Your task to perform on an android device: empty trash in the gmail app Image 0: 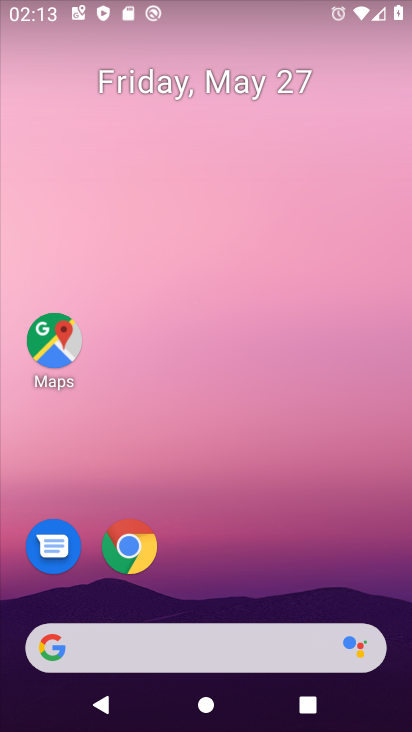
Step 0: drag from (244, 655) to (275, 91)
Your task to perform on an android device: empty trash in the gmail app Image 1: 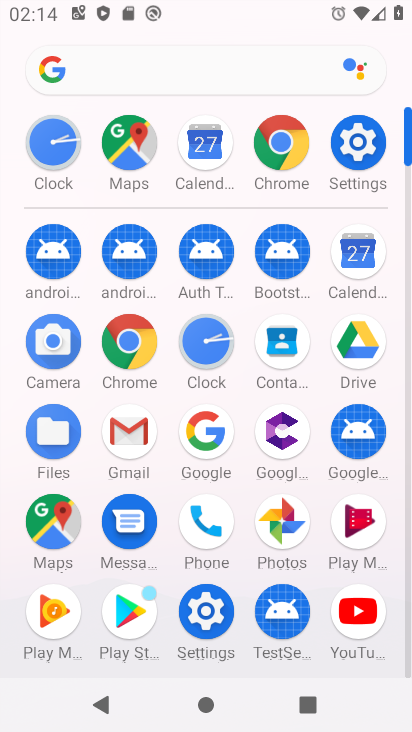
Step 1: click (143, 462)
Your task to perform on an android device: empty trash in the gmail app Image 2: 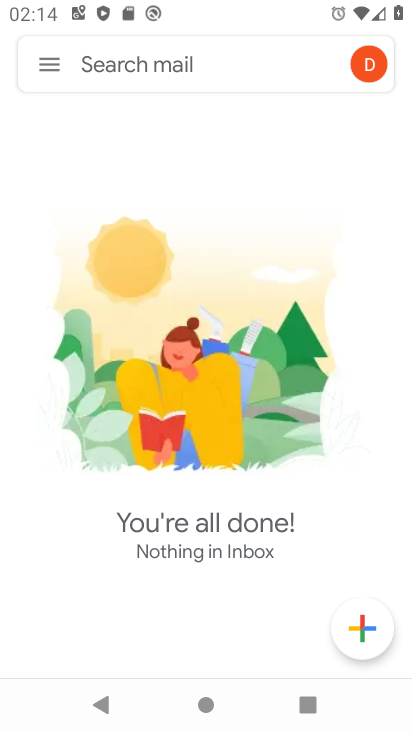
Step 2: click (50, 67)
Your task to perform on an android device: empty trash in the gmail app Image 3: 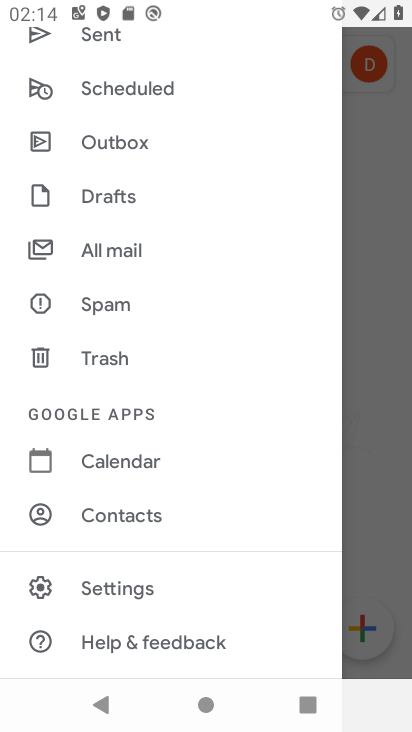
Step 3: click (116, 353)
Your task to perform on an android device: empty trash in the gmail app Image 4: 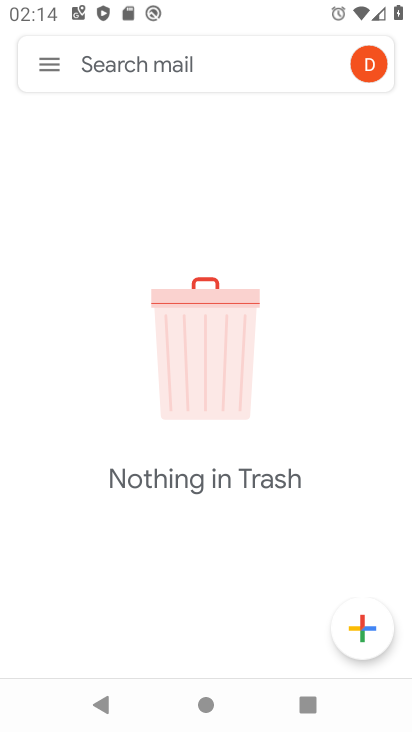
Step 4: task complete